Your task to perform on an android device: View the shopping cart on walmart. Add "amazon basics triple a" to the cart on walmart, then select checkout. Image 0: 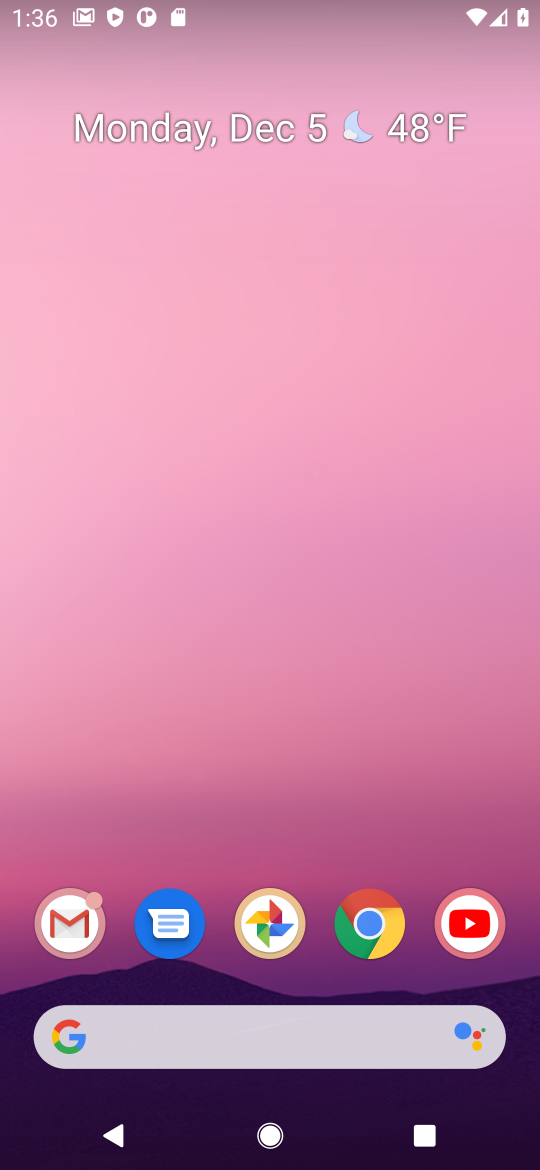
Step 0: click (236, 1057)
Your task to perform on an android device: View the shopping cart on walmart. Add "amazon basics triple a" to the cart on walmart, then select checkout. Image 1: 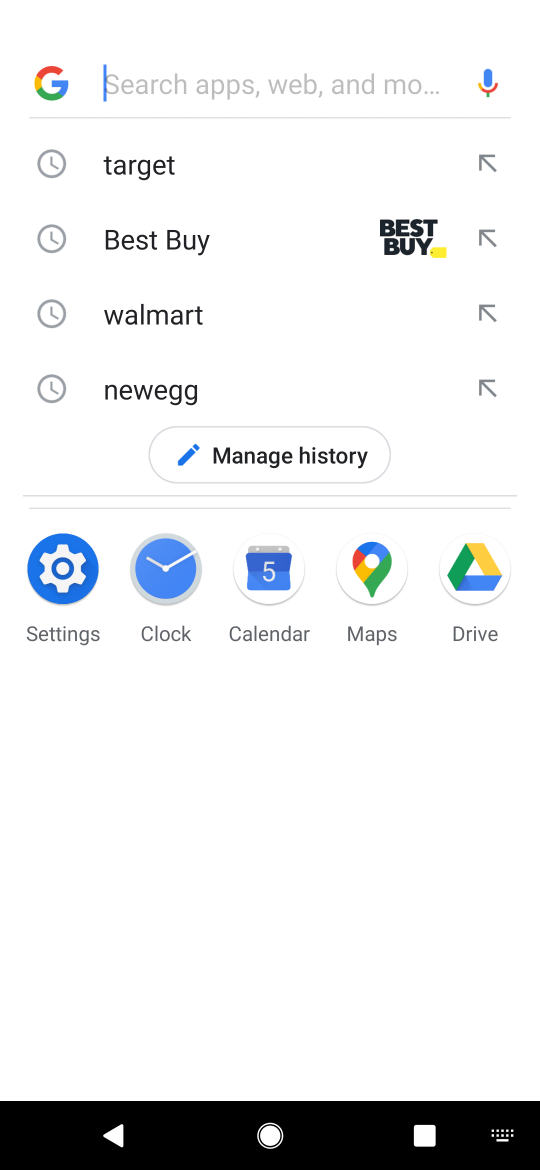
Step 1: type "walmart"
Your task to perform on an android device: View the shopping cart on walmart. Add "amazon basics triple a" to the cart on walmart, then select checkout. Image 2: 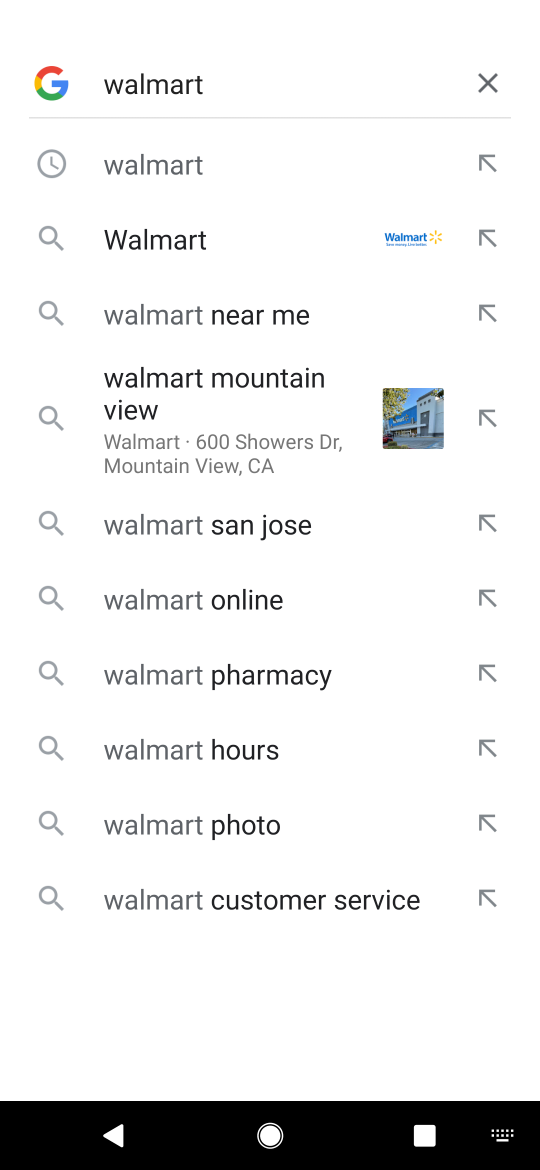
Step 2: click (162, 235)
Your task to perform on an android device: View the shopping cart on walmart. Add "amazon basics triple a" to the cart on walmart, then select checkout. Image 3: 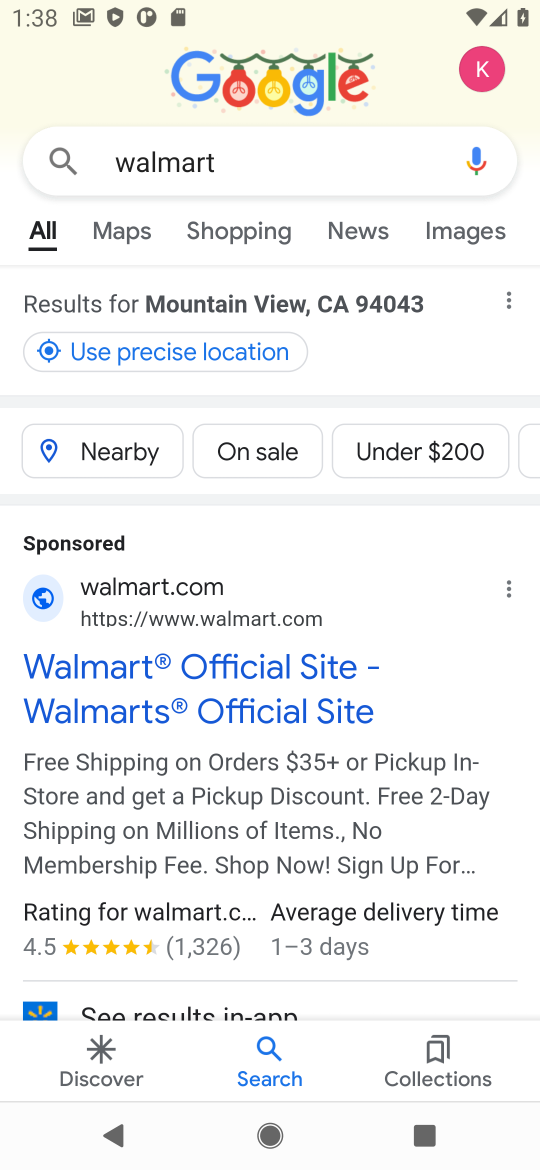
Step 3: click (151, 678)
Your task to perform on an android device: View the shopping cart on walmart. Add "amazon basics triple a" to the cart on walmart, then select checkout. Image 4: 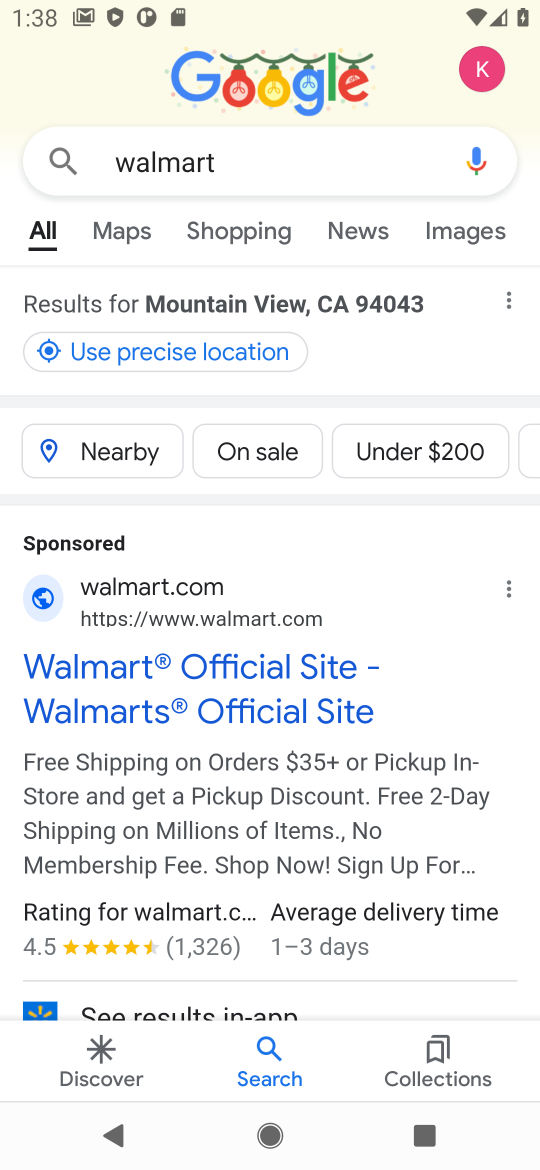
Step 4: task complete